Your task to perform on an android device: Find coffee shops on Maps Image 0: 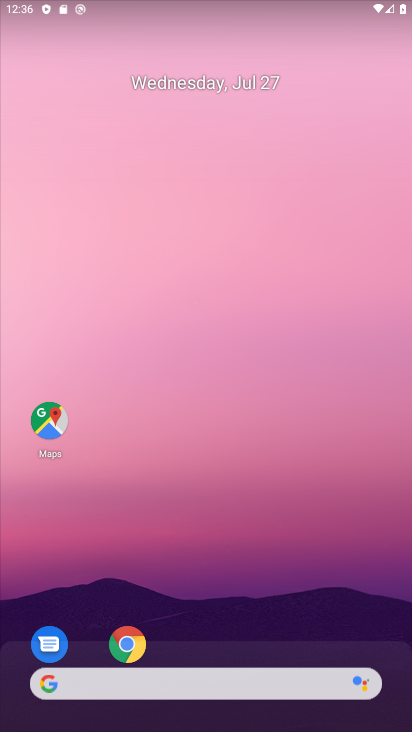
Step 0: click (44, 428)
Your task to perform on an android device: Find coffee shops on Maps Image 1: 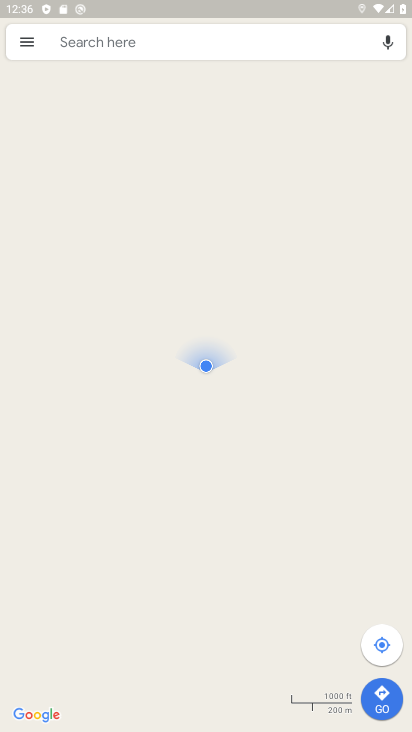
Step 1: click (136, 32)
Your task to perform on an android device: Find coffee shops on Maps Image 2: 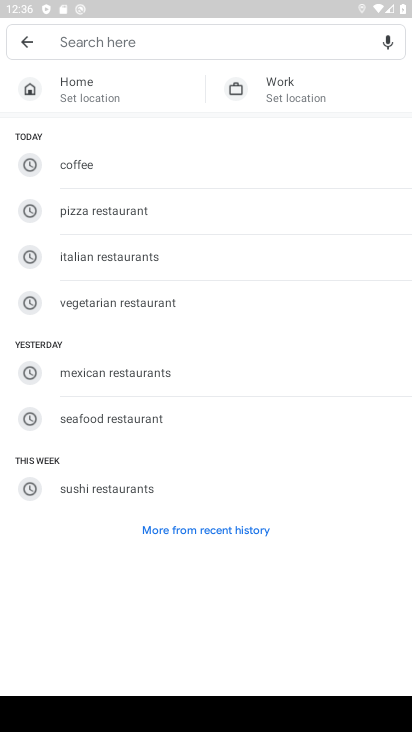
Step 2: type "coffee shops"
Your task to perform on an android device: Find coffee shops on Maps Image 3: 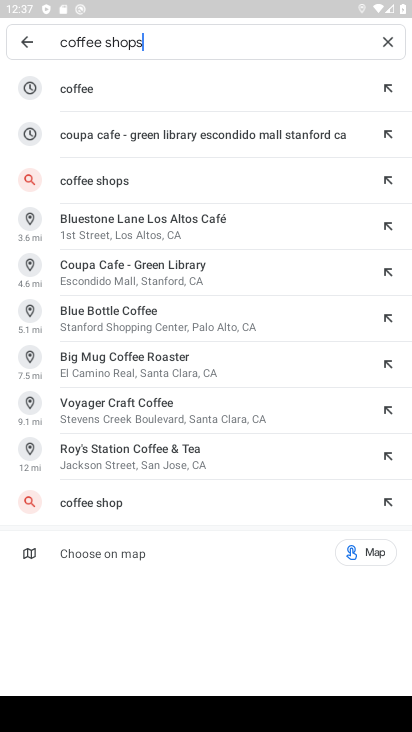
Step 3: click (138, 181)
Your task to perform on an android device: Find coffee shops on Maps Image 4: 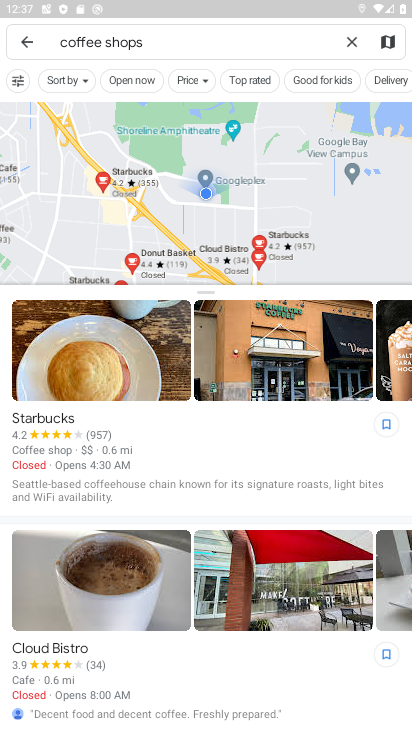
Step 4: task complete